Your task to perform on an android device: open app "PUBG MOBILE" (install if not already installed) and go to login screen Image 0: 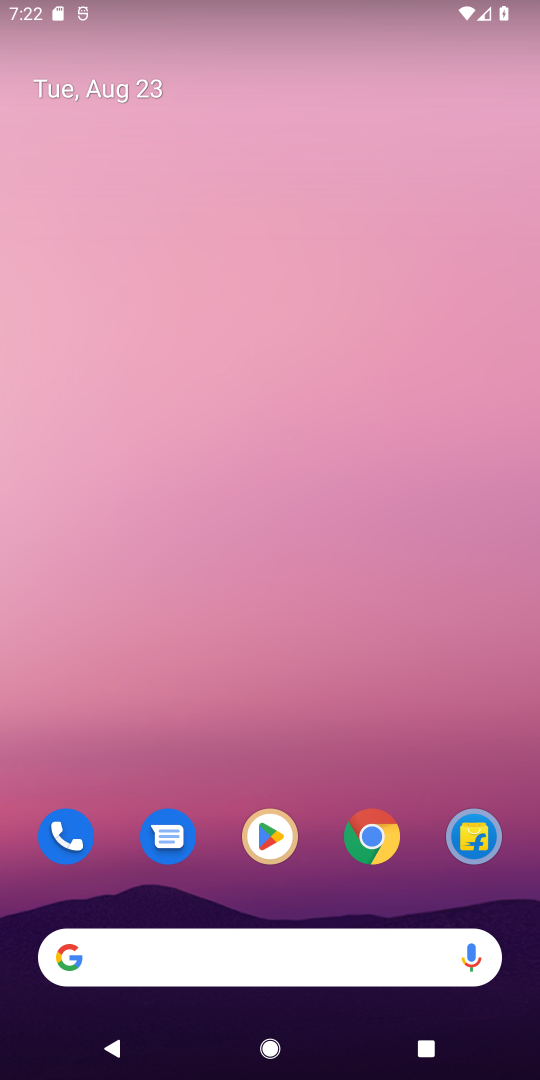
Step 0: click (269, 834)
Your task to perform on an android device: open app "PUBG MOBILE" (install if not already installed) and go to login screen Image 1: 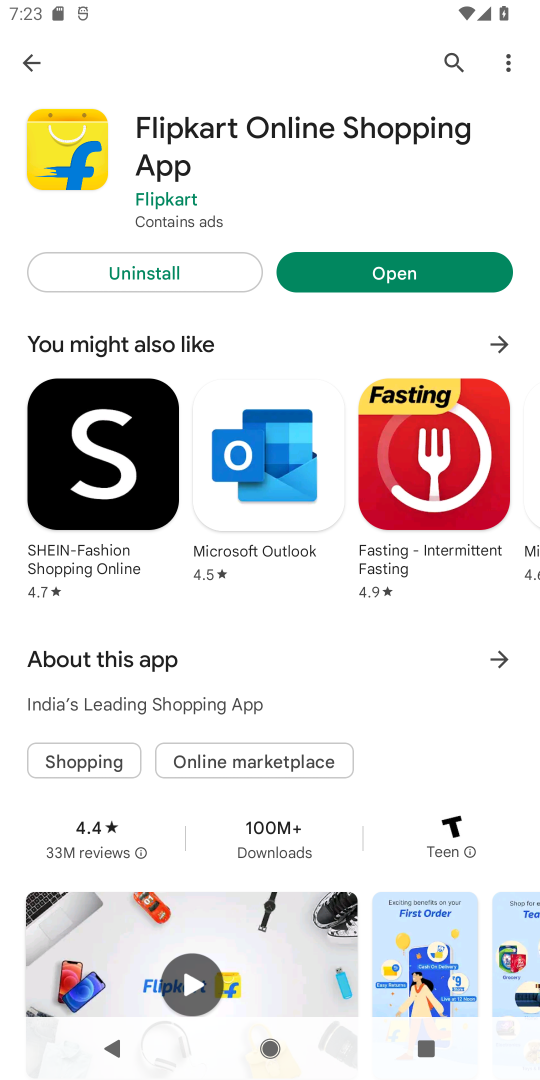
Step 1: click (455, 56)
Your task to perform on an android device: open app "PUBG MOBILE" (install if not already installed) and go to login screen Image 2: 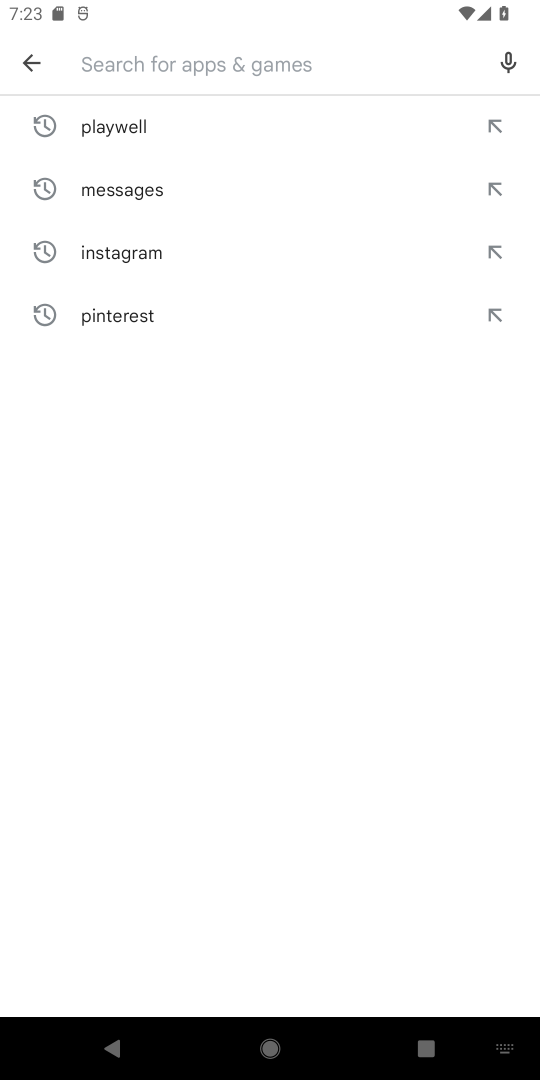
Step 2: type "PUBG MOBILE"
Your task to perform on an android device: open app "PUBG MOBILE" (install if not already installed) and go to login screen Image 3: 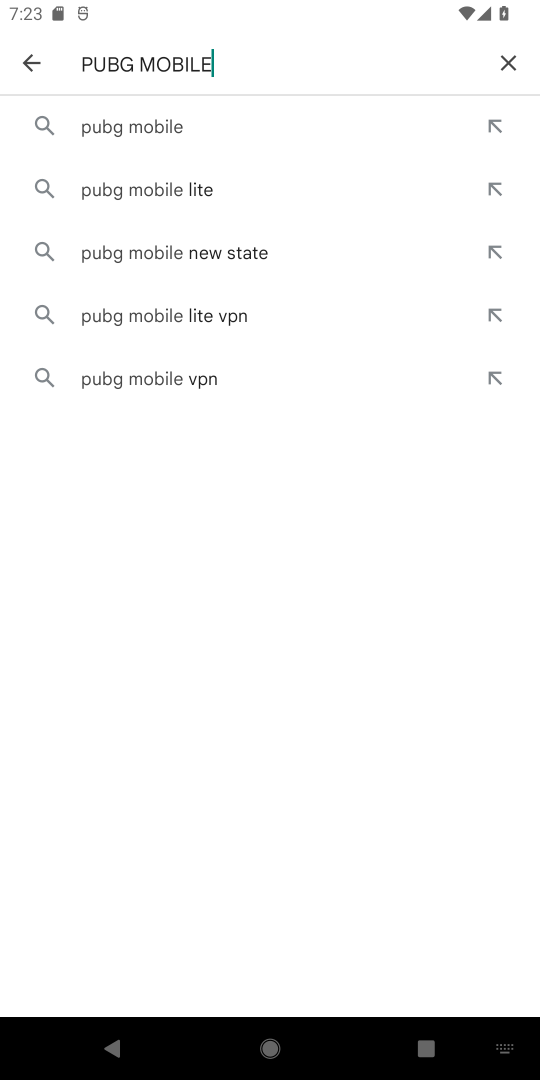
Step 3: click (176, 116)
Your task to perform on an android device: open app "PUBG MOBILE" (install if not already installed) and go to login screen Image 4: 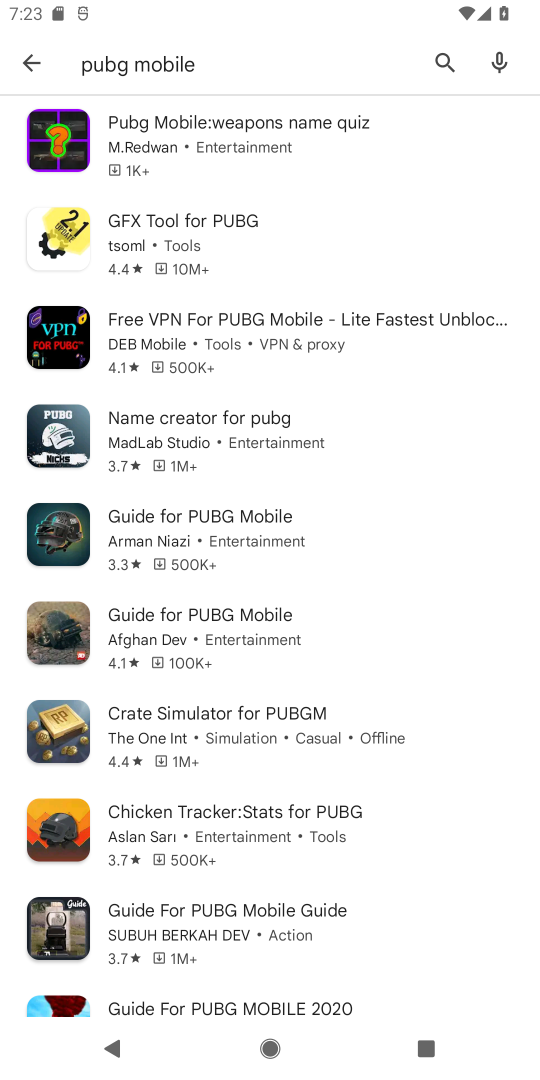
Step 4: click (163, 129)
Your task to perform on an android device: open app "PUBG MOBILE" (install if not already installed) and go to login screen Image 5: 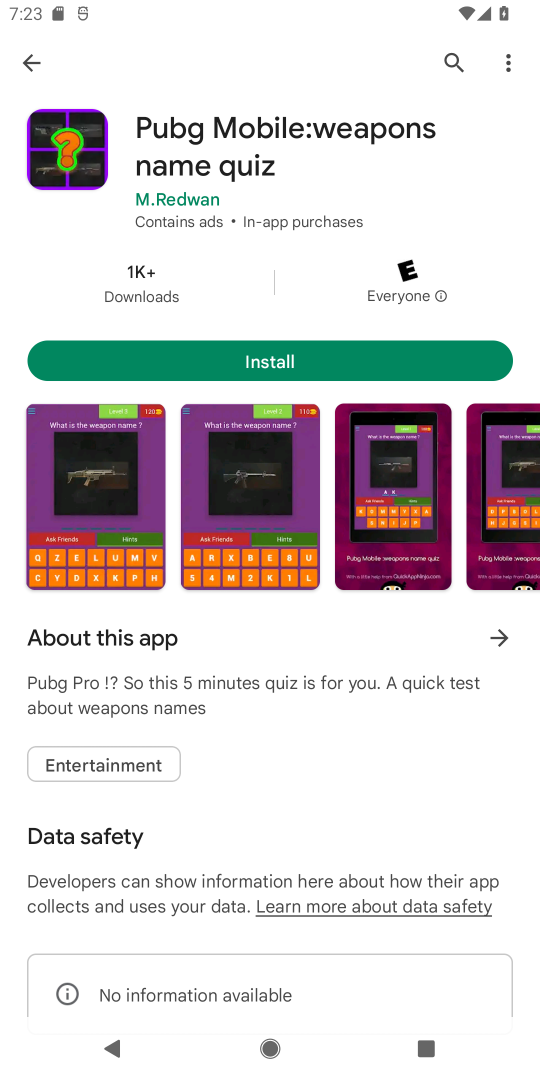
Step 5: click (267, 358)
Your task to perform on an android device: open app "PUBG MOBILE" (install if not already installed) and go to login screen Image 6: 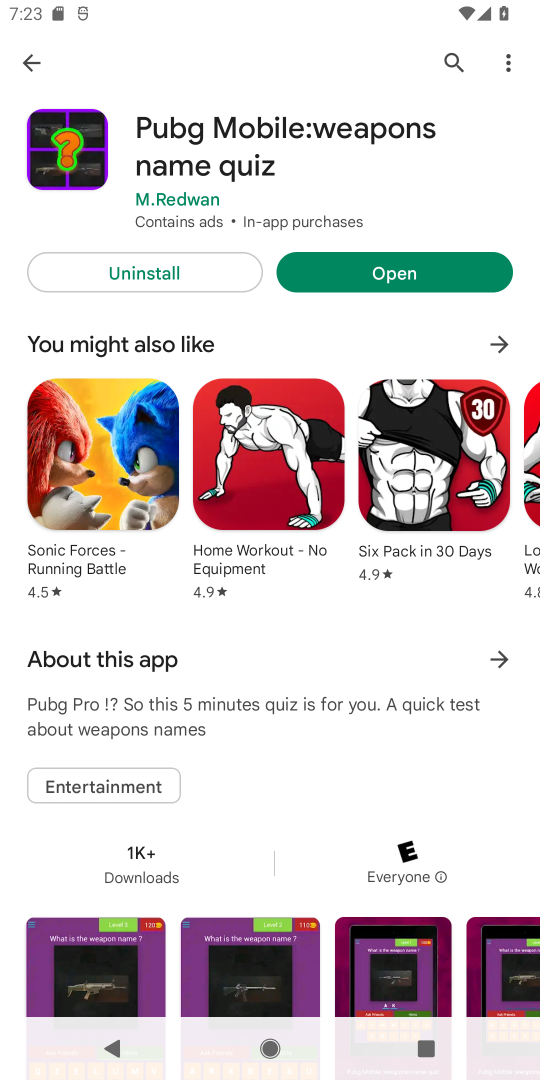
Step 6: click (378, 269)
Your task to perform on an android device: open app "PUBG MOBILE" (install if not already installed) and go to login screen Image 7: 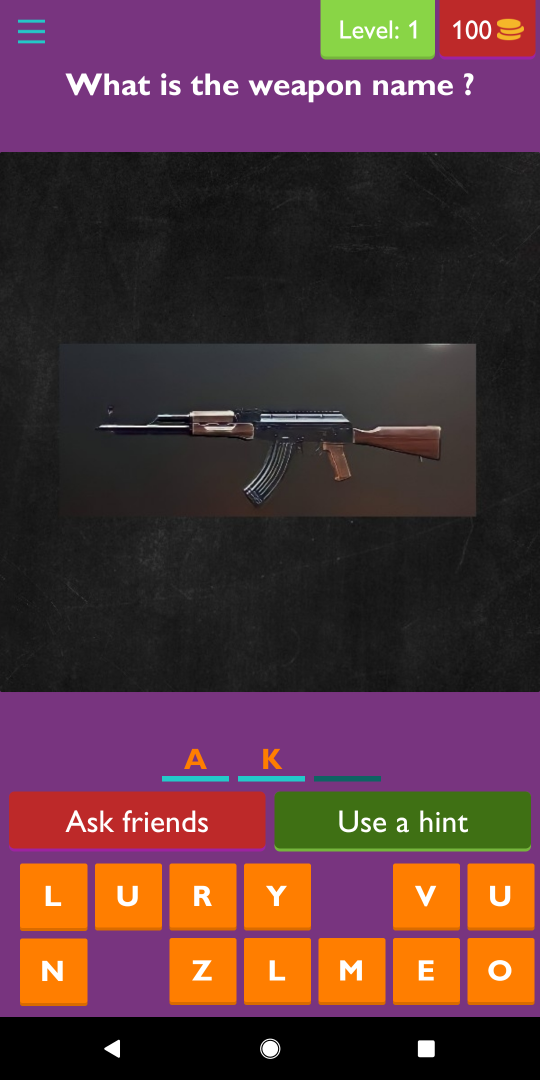
Step 7: task complete